Your task to perform on an android device: Open Google Maps Image 0: 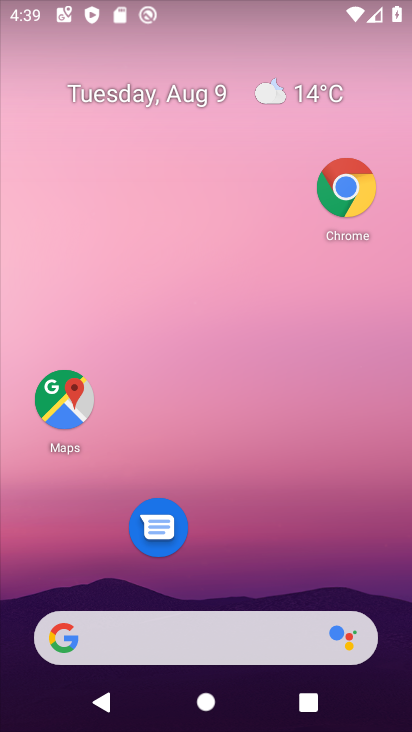
Step 0: click (73, 393)
Your task to perform on an android device: Open Google Maps Image 1: 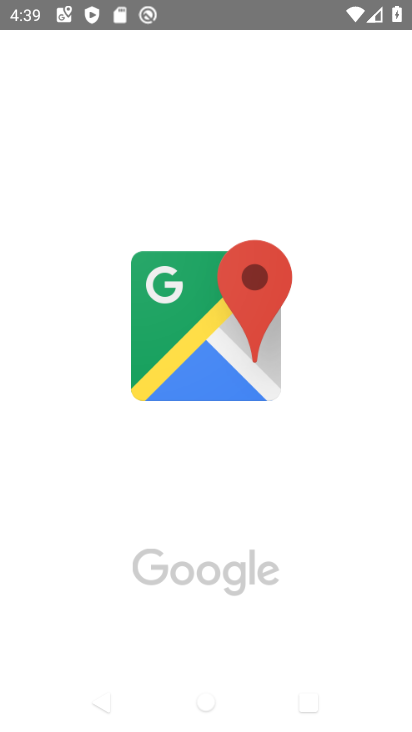
Step 1: click (73, 393)
Your task to perform on an android device: Open Google Maps Image 2: 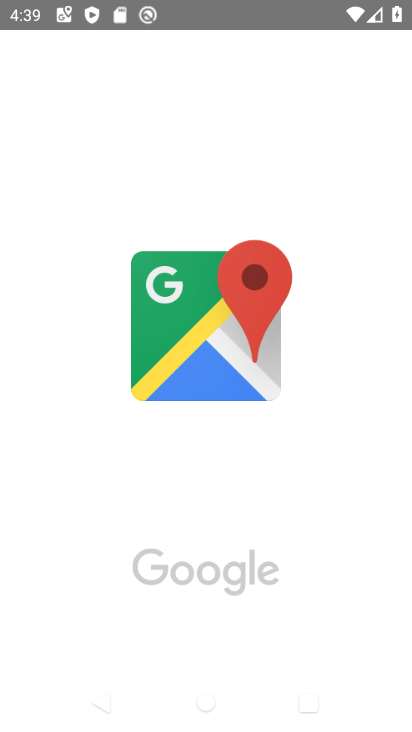
Step 2: click (73, 393)
Your task to perform on an android device: Open Google Maps Image 3: 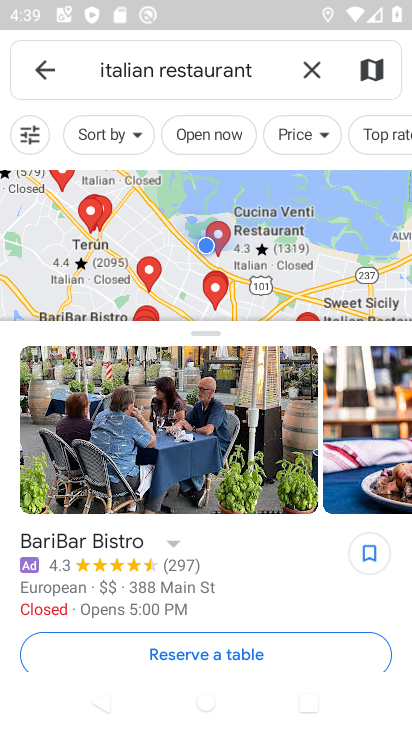
Step 3: task complete